Your task to perform on an android device: Set an alarm for 2pm Image 0: 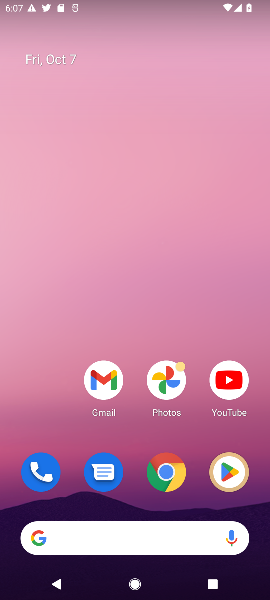
Step 0: drag from (197, 448) to (177, 124)
Your task to perform on an android device: Set an alarm for 2pm Image 1: 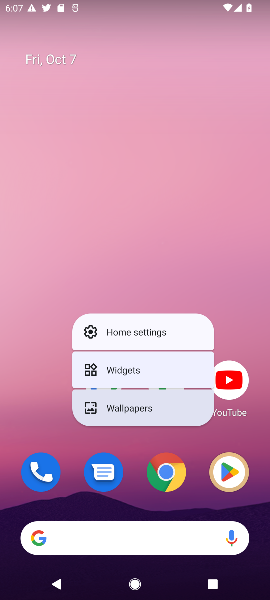
Step 1: drag from (229, 278) to (168, 14)
Your task to perform on an android device: Set an alarm for 2pm Image 2: 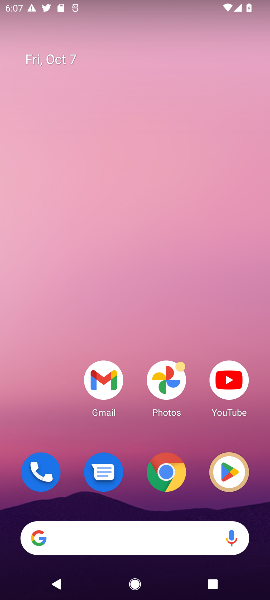
Step 2: drag from (188, 491) to (189, 196)
Your task to perform on an android device: Set an alarm for 2pm Image 3: 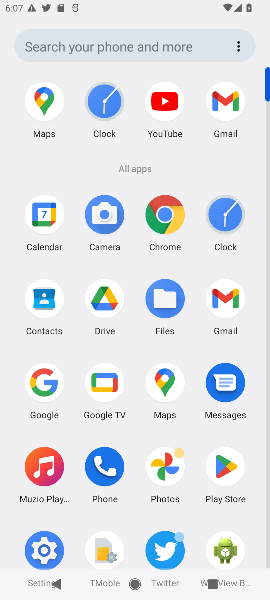
Step 3: click (222, 227)
Your task to perform on an android device: Set an alarm for 2pm Image 4: 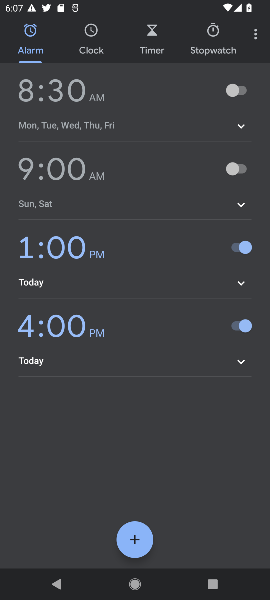
Step 4: click (128, 542)
Your task to perform on an android device: Set an alarm for 2pm Image 5: 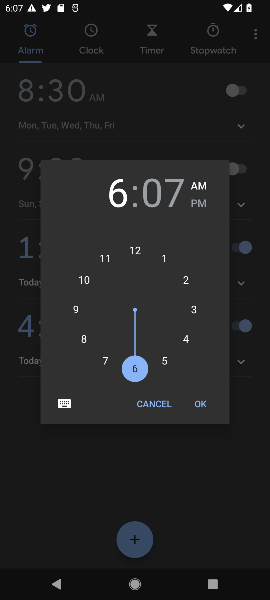
Step 5: click (195, 207)
Your task to perform on an android device: Set an alarm for 2pm Image 6: 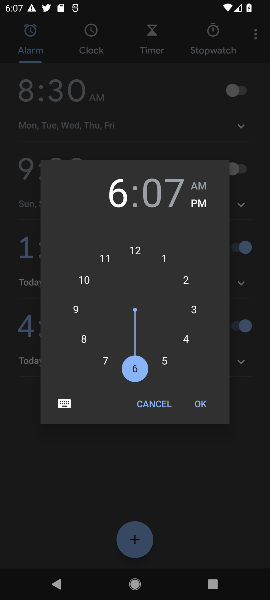
Step 6: click (185, 283)
Your task to perform on an android device: Set an alarm for 2pm Image 7: 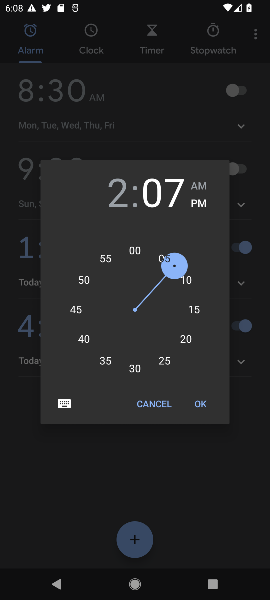
Step 7: click (136, 248)
Your task to perform on an android device: Set an alarm for 2pm Image 8: 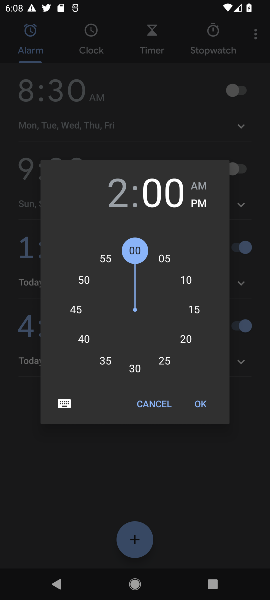
Step 8: click (200, 404)
Your task to perform on an android device: Set an alarm for 2pm Image 9: 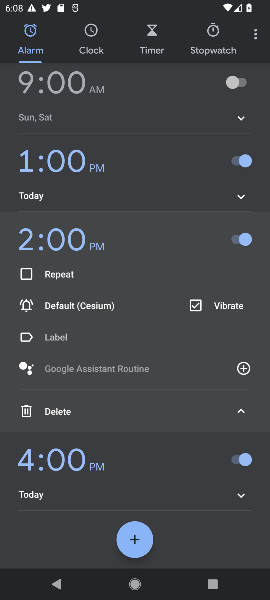
Step 9: task complete